Your task to perform on an android device: Toggle the flashlight Image 0: 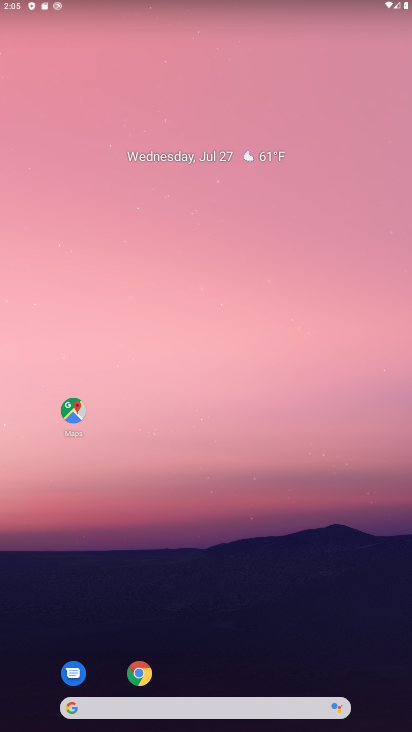
Step 0: click (133, 681)
Your task to perform on an android device: Toggle the flashlight Image 1: 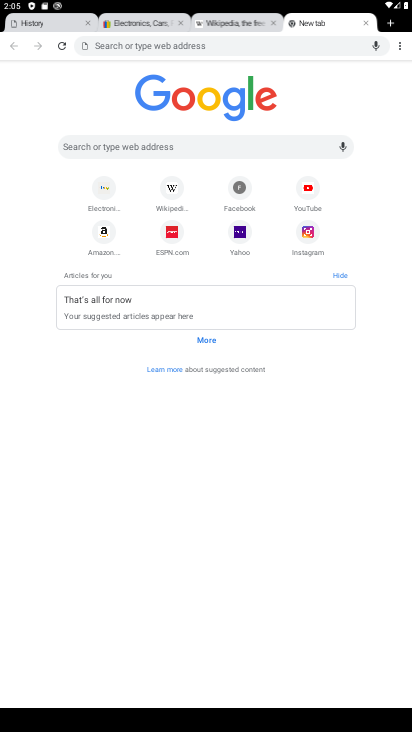
Step 1: press home button
Your task to perform on an android device: Toggle the flashlight Image 2: 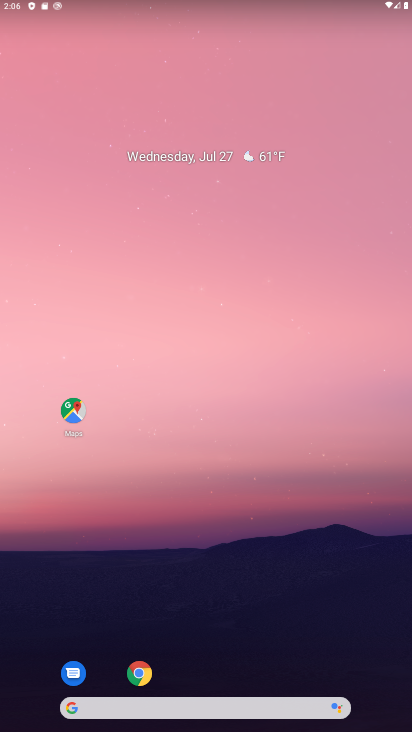
Step 2: drag from (236, 688) to (214, 191)
Your task to perform on an android device: Toggle the flashlight Image 3: 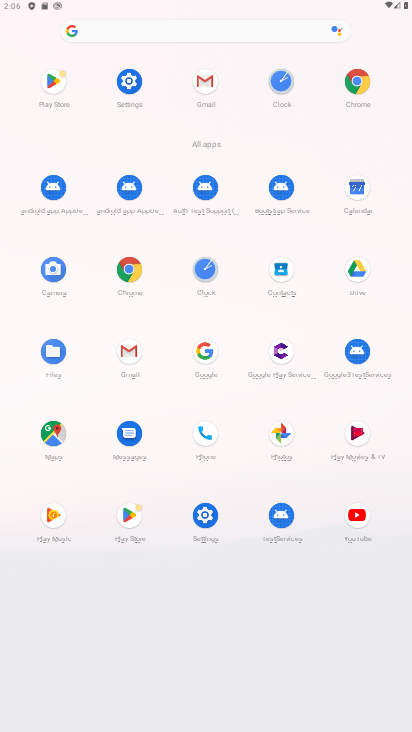
Step 3: click (210, 511)
Your task to perform on an android device: Toggle the flashlight Image 4: 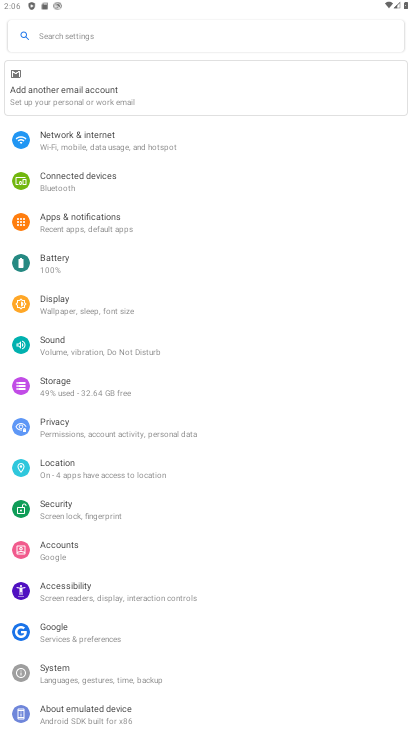
Step 4: task complete